Your task to perform on an android device: Open Chrome and go to settings Image 0: 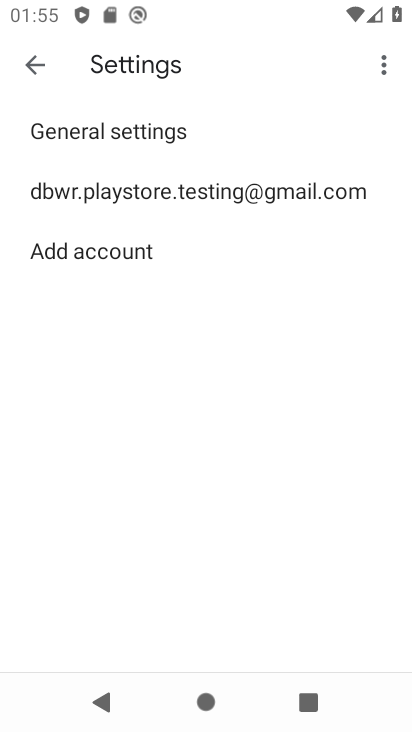
Step 0: drag from (199, 599) to (230, 136)
Your task to perform on an android device: Open Chrome and go to settings Image 1: 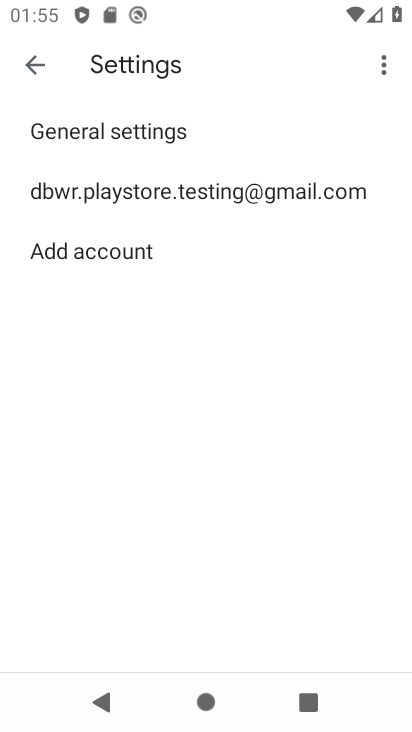
Step 1: press home button
Your task to perform on an android device: Open Chrome and go to settings Image 2: 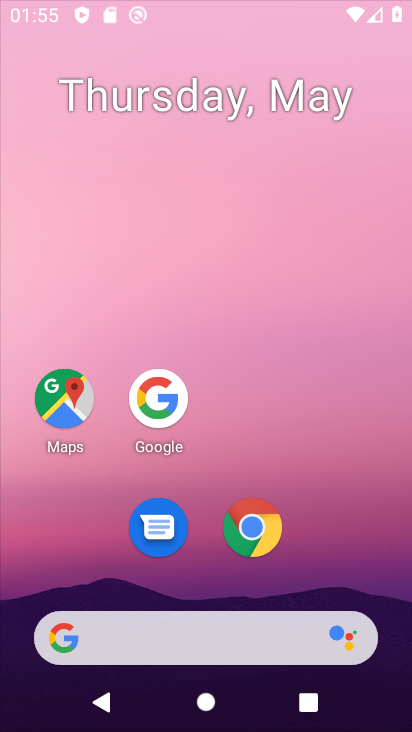
Step 2: drag from (202, 507) to (285, 206)
Your task to perform on an android device: Open Chrome and go to settings Image 3: 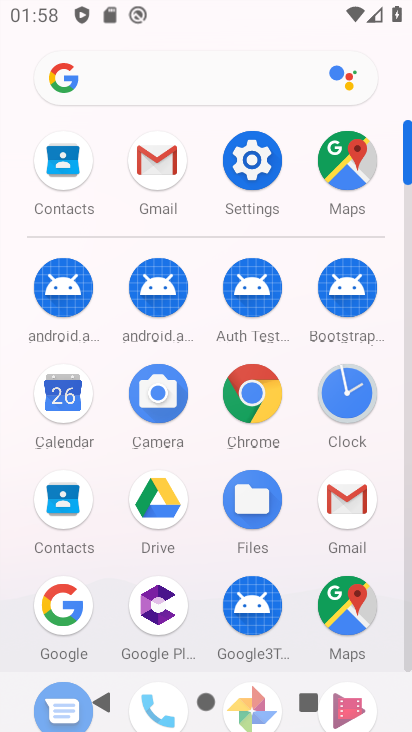
Step 3: click (261, 386)
Your task to perform on an android device: Open Chrome and go to settings Image 4: 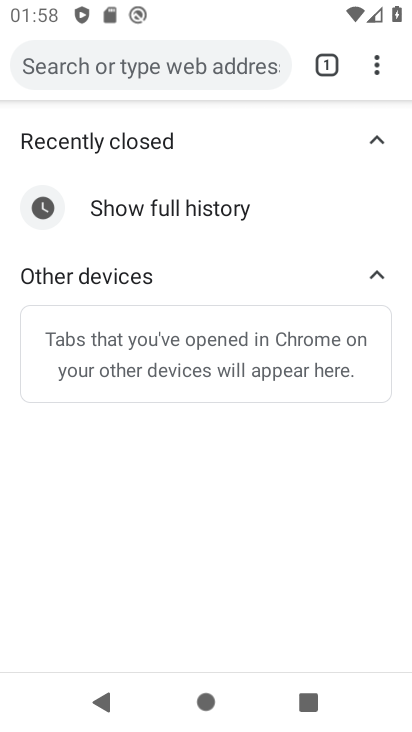
Step 4: click (381, 70)
Your task to perform on an android device: Open Chrome and go to settings Image 5: 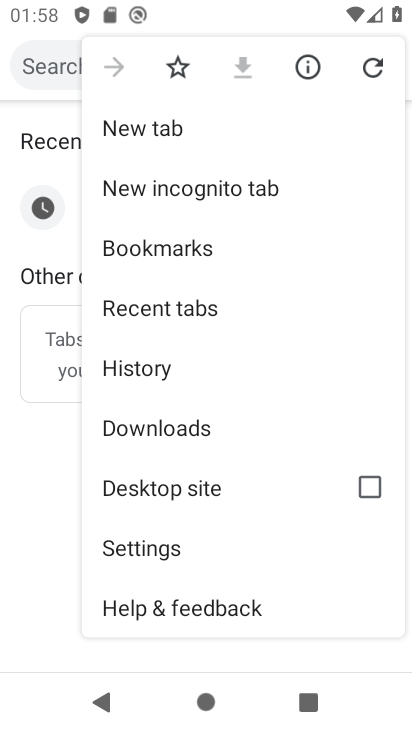
Step 5: click (182, 532)
Your task to perform on an android device: Open Chrome and go to settings Image 6: 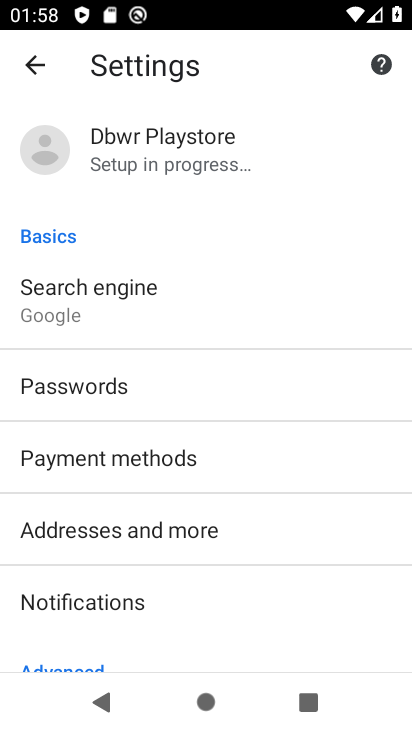
Step 6: task complete